Your task to perform on an android device: Search for "bose soundlink" on ebay, select the first entry, and add it to the cart. Image 0: 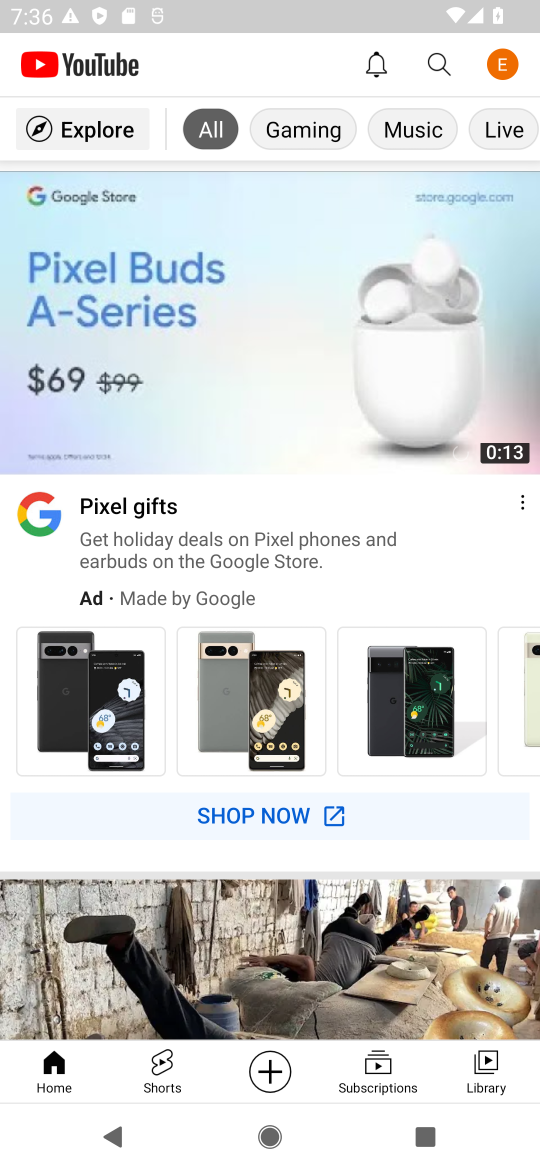
Step 0: press home button
Your task to perform on an android device: Search for "bose soundlink" on ebay, select the first entry, and add it to the cart. Image 1: 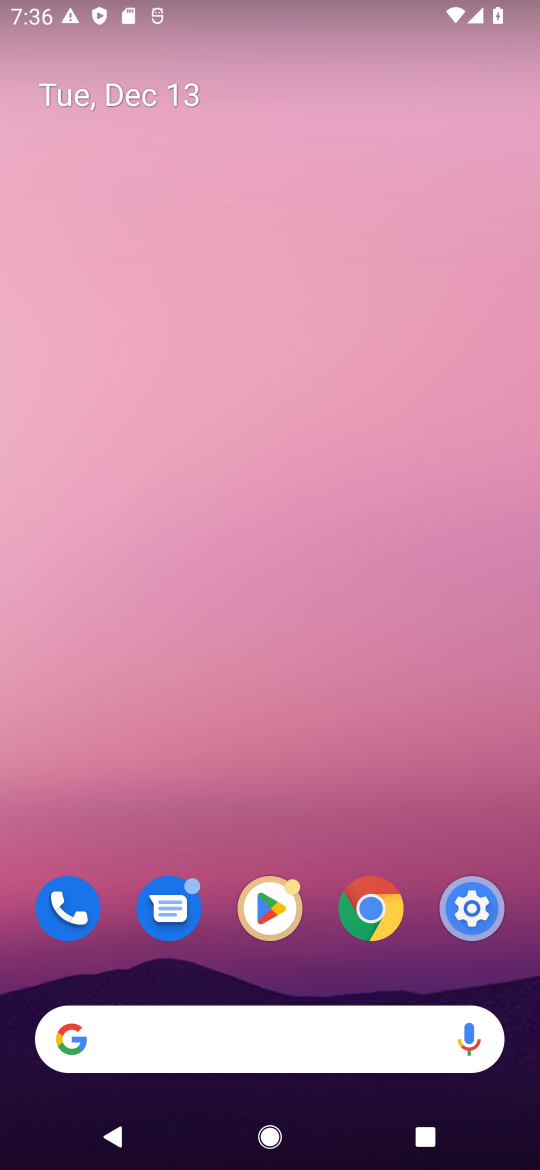
Step 1: click (109, 1034)
Your task to perform on an android device: Search for "bose soundlink" on ebay, select the first entry, and add it to the cart. Image 2: 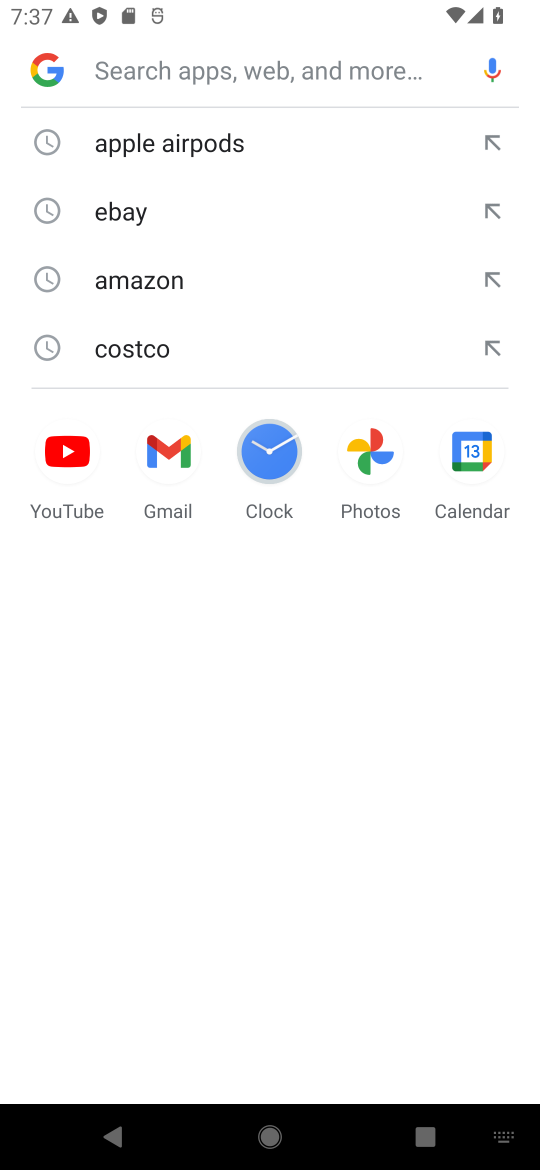
Step 2: type "ebay"
Your task to perform on an android device: Search for "bose soundlink" on ebay, select the first entry, and add it to the cart. Image 3: 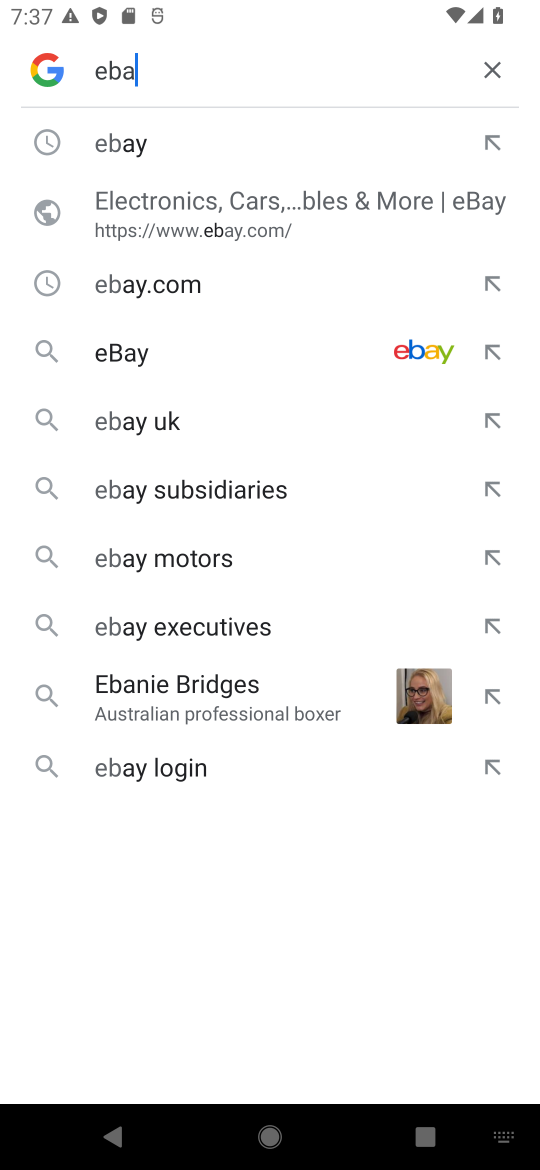
Step 3: press enter
Your task to perform on an android device: Search for "bose soundlink" on ebay, select the first entry, and add it to the cart. Image 4: 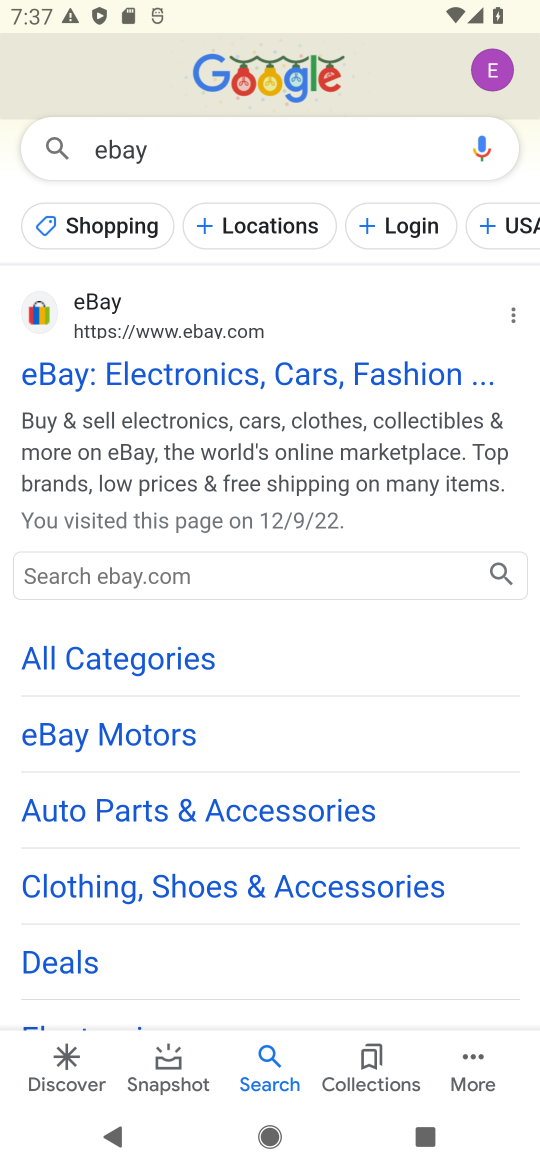
Step 4: click (174, 370)
Your task to perform on an android device: Search for "bose soundlink" on ebay, select the first entry, and add it to the cart. Image 5: 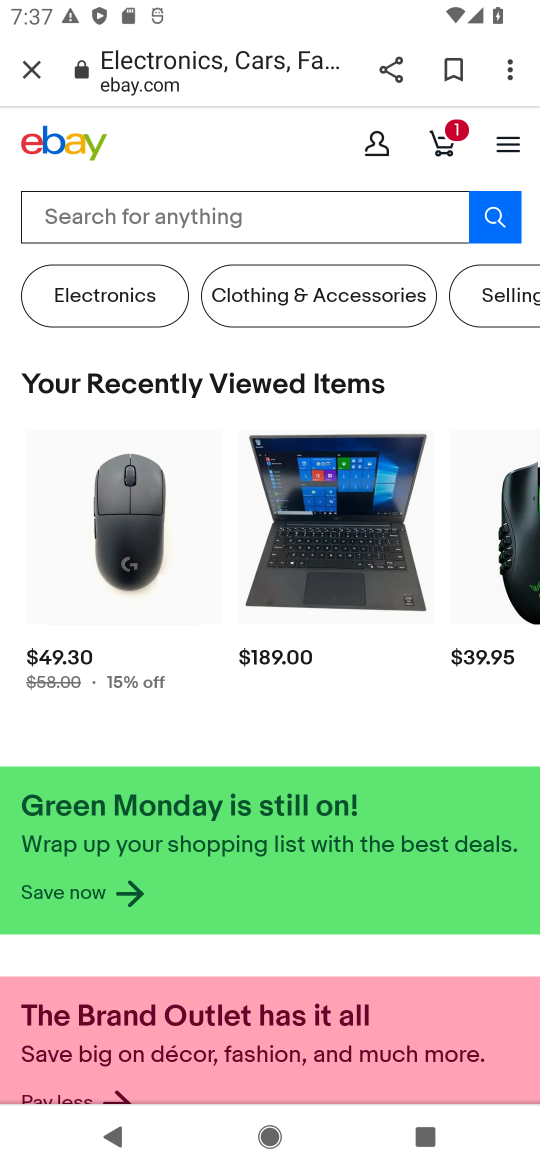
Step 5: click (227, 220)
Your task to perform on an android device: Search for "bose soundlink" on ebay, select the first entry, and add it to the cart. Image 6: 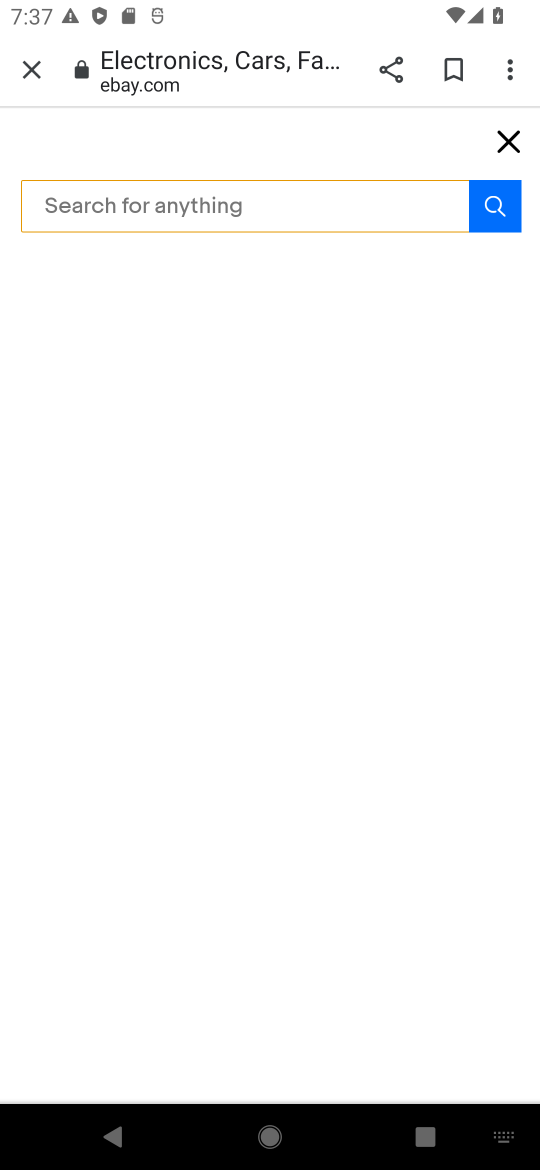
Step 6: type "bose soundlink"
Your task to perform on an android device: Search for "bose soundlink" on ebay, select the first entry, and add it to the cart. Image 7: 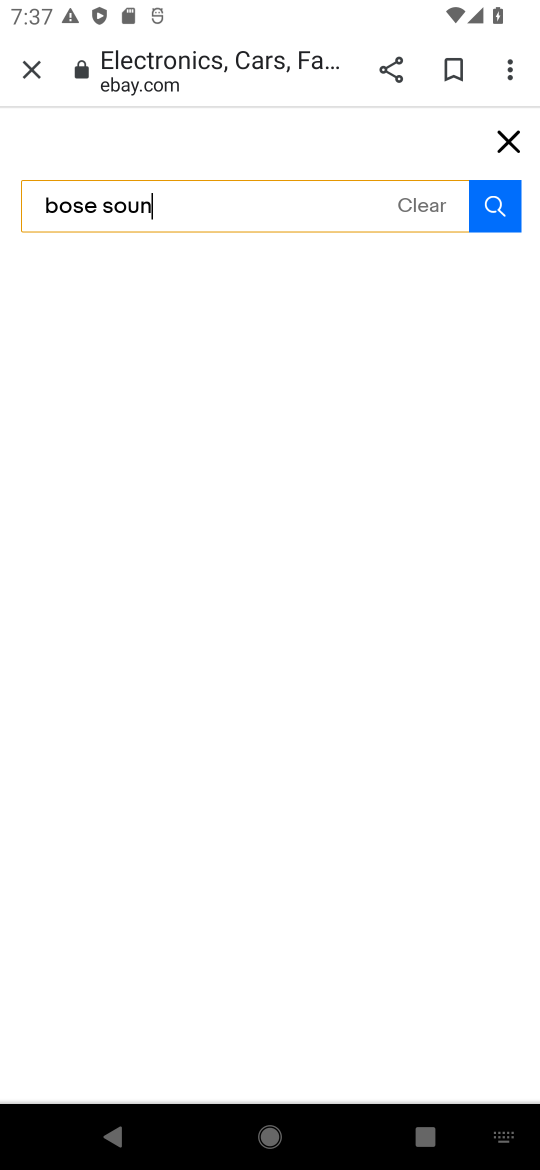
Step 7: press enter
Your task to perform on an android device: Search for "bose soundlink" on ebay, select the first entry, and add it to the cart. Image 8: 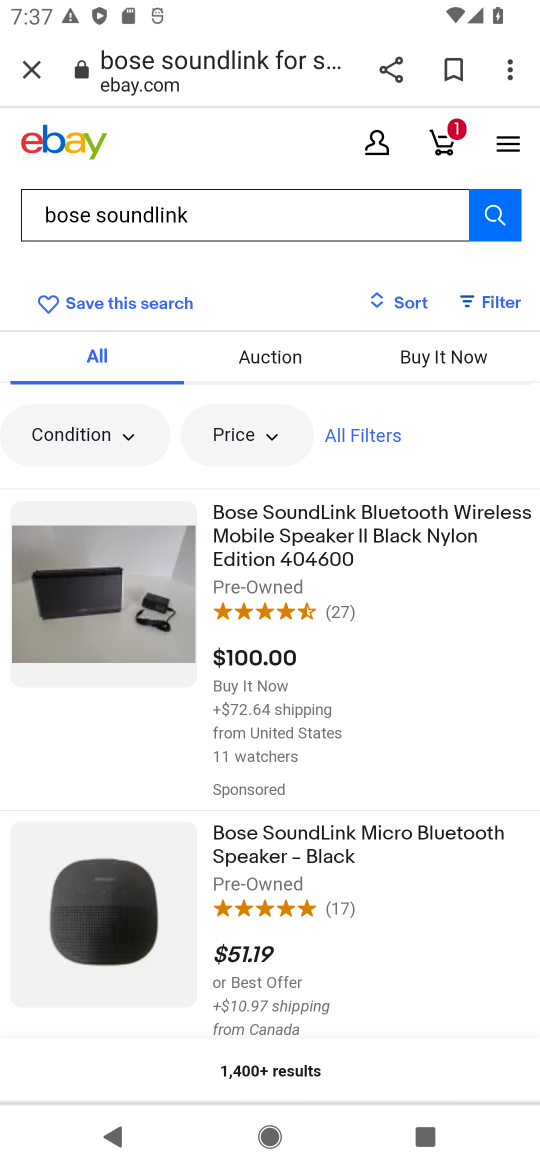
Step 8: click (282, 535)
Your task to perform on an android device: Search for "bose soundlink" on ebay, select the first entry, and add it to the cart. Image 9: 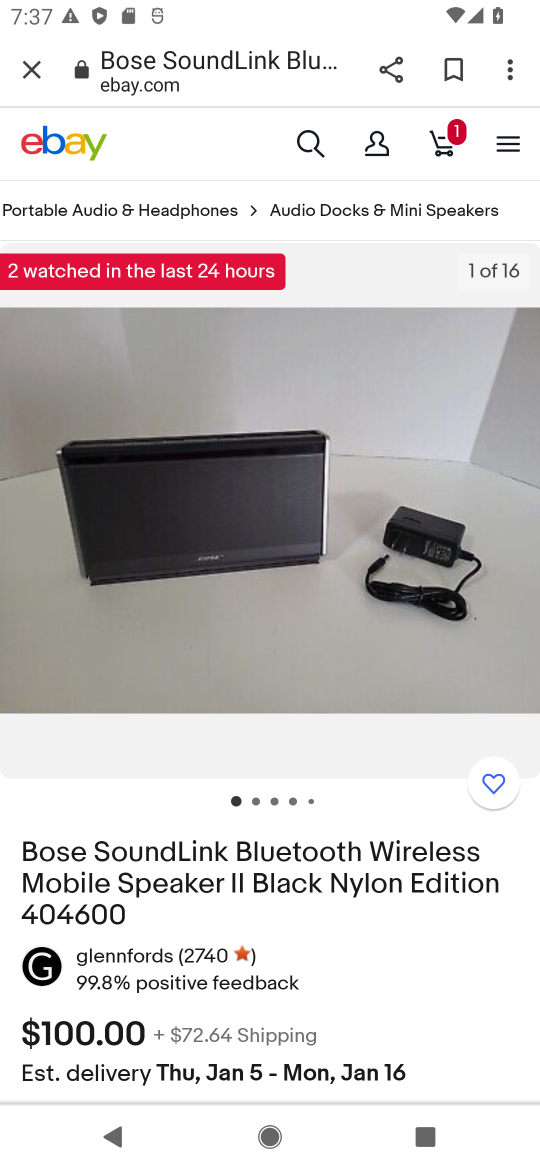
Step 9: drag from (323, 1024) to (303, 486)
Your task to perform on an android device: Search for "bose soundlink" on ebay, select the first entry, and add it to the cart. Image 10: 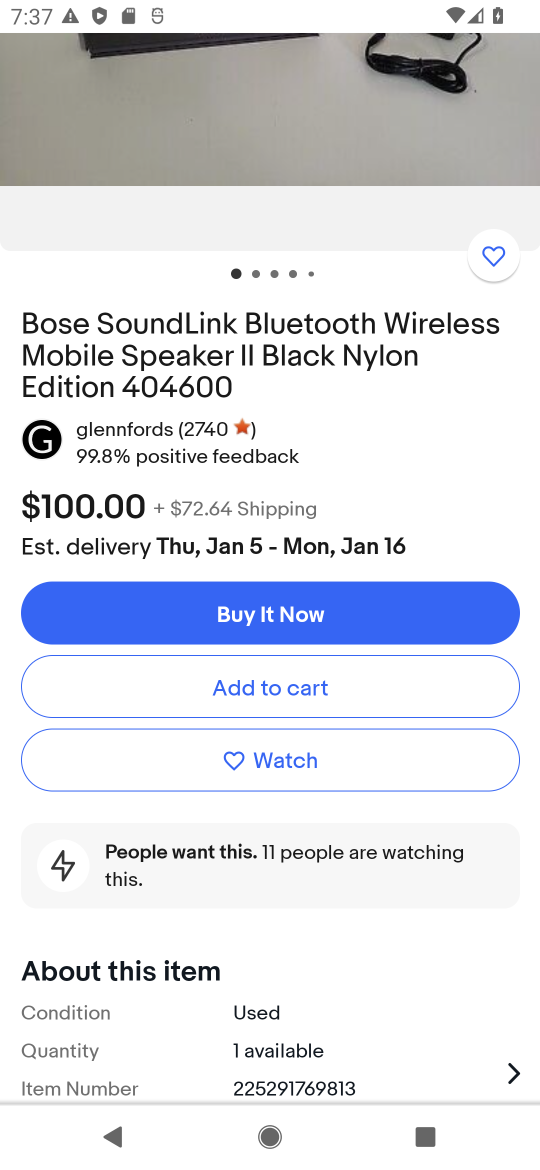
Step 10: click (227, 685)
Your task to perform on an android device: Search for "bose soundlink" on ebay, select the first entry, and add it to the cart. Image 11: 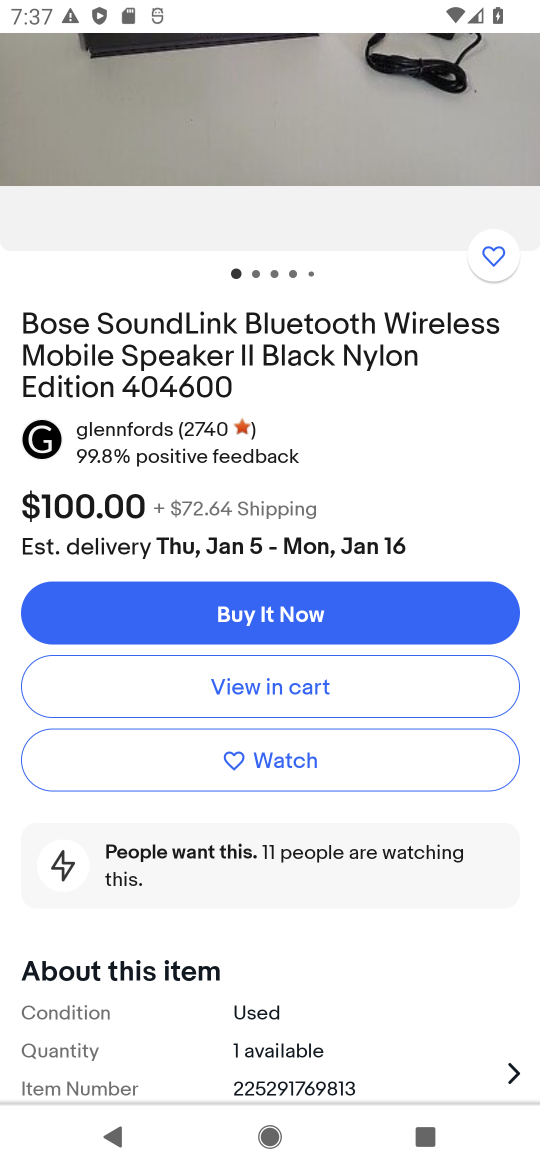
Step 11: task complete